Your task to perform on an android device: open chrome privacy settings Image 0: 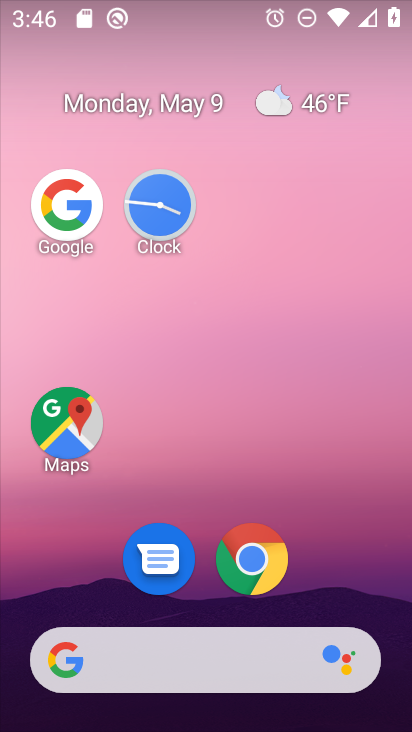
Step 0: click (270, 565)
Your task to perform on an android device: open chrome privacy settings Image 1: 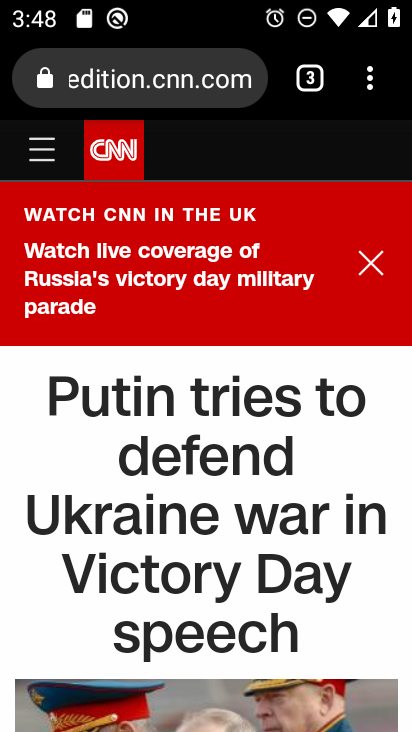
Step 1: click (370, 87)
Your task to perform on an android device: open chrome privacy settings Image 2: 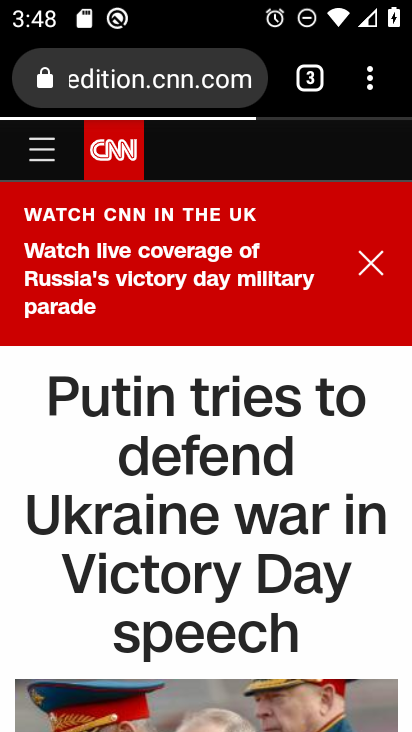
Step 2: click (368, 53)
Your task to perform on an android device: open chrome privacy settings Image 3: 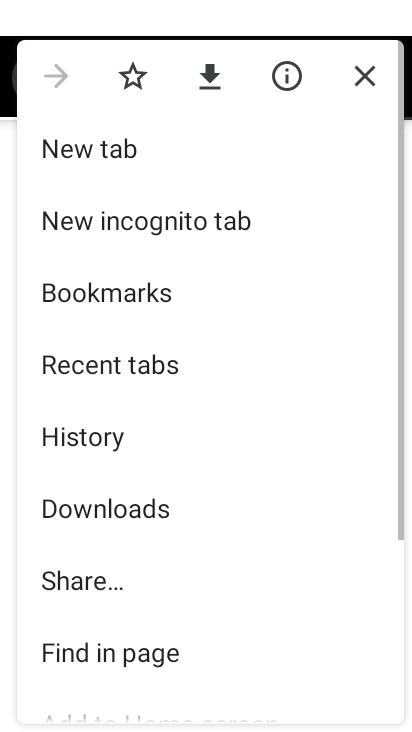
Step 3: drag from (168, 554) to (194, 250)
Your task to perform on an android device: open chrome privacy settings Image 4: 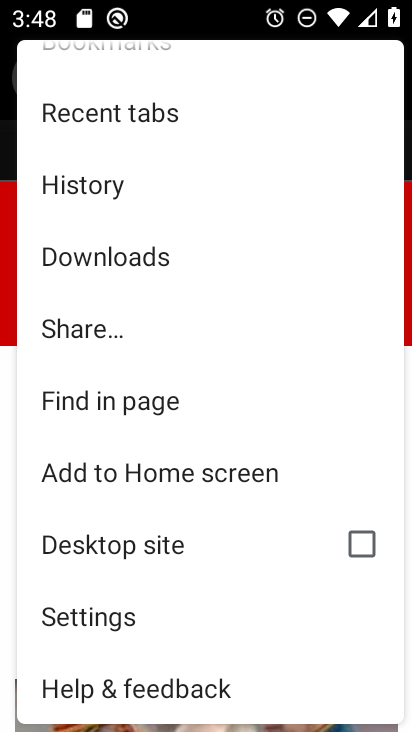
Step 4: click (141, 615)
Your task to perform on an android device: open chrome privacy settings Image 5: 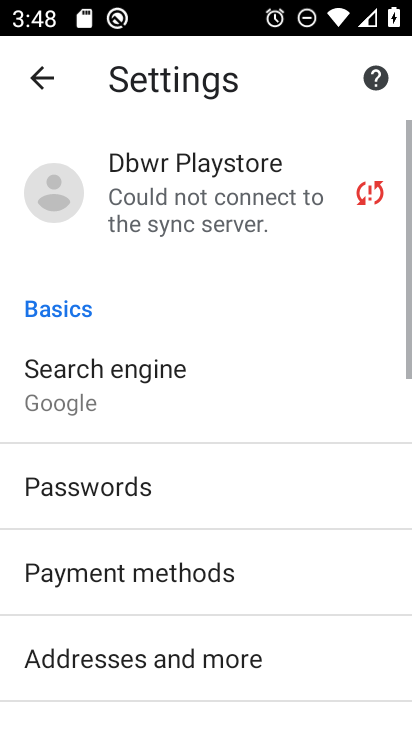
Step 5: drag from (141, 600) to (157, 272)
Your task to perform on an android device: open chrome privacy settings Image 6: 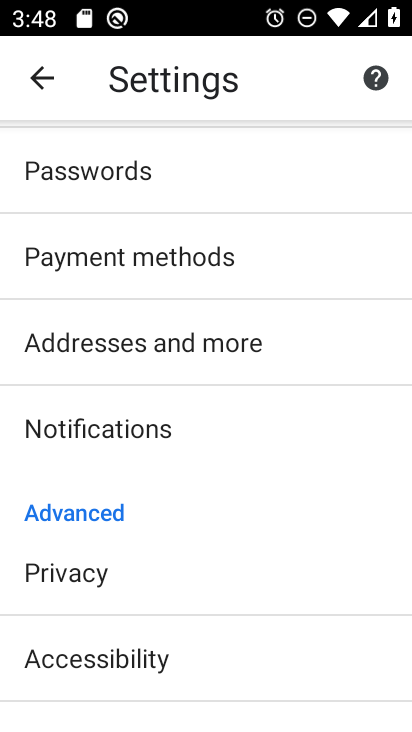
Step 6: click (170, 590)
Your task to perform on an android device: open chrome privacy settings Image 7: 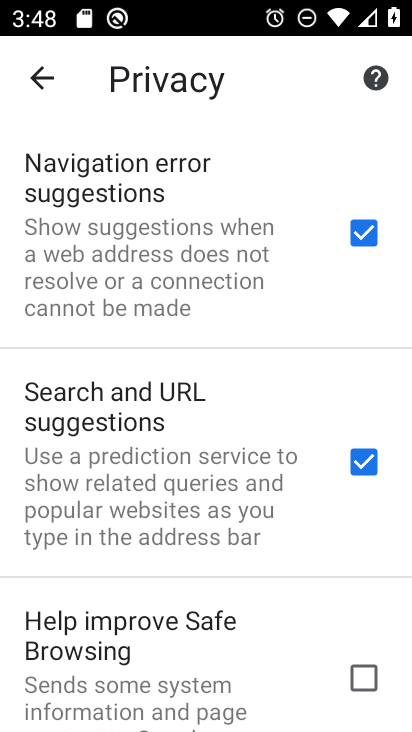
Step 7: task complete